Your task to perform on an android device: turn notification dots off Image 0: 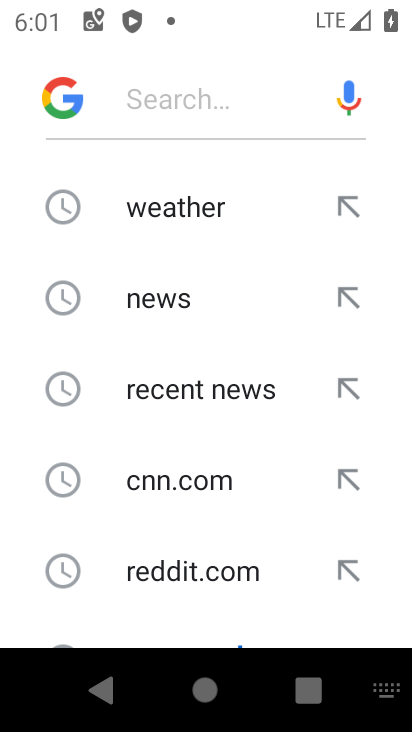
Step 0: press home button
Your task to perform on an android device: turn notification dots off Image 1: 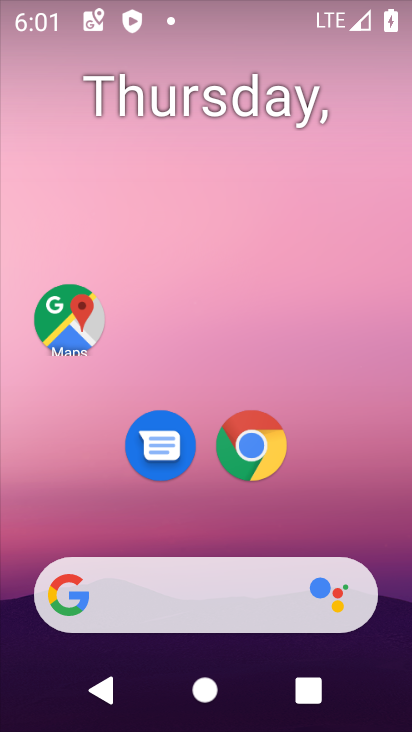
Step 1: drag from (295, 501) to (336, 87)
Your task to perform on an android device: turn notification dots off Image 2: 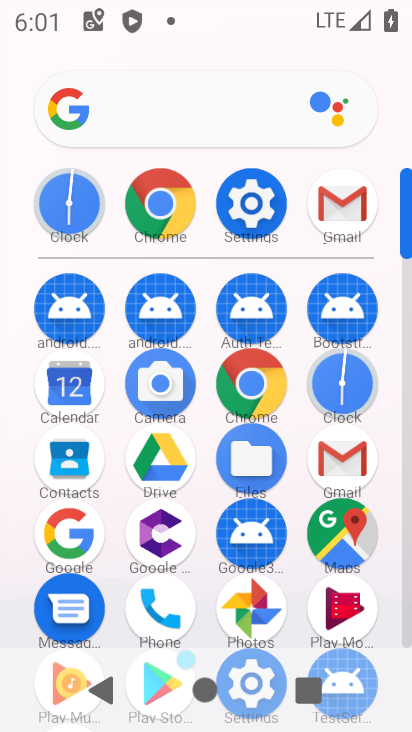
Step 2: click (235, 194)
Your task to perform on an android device: turn notification dots off Image 3: 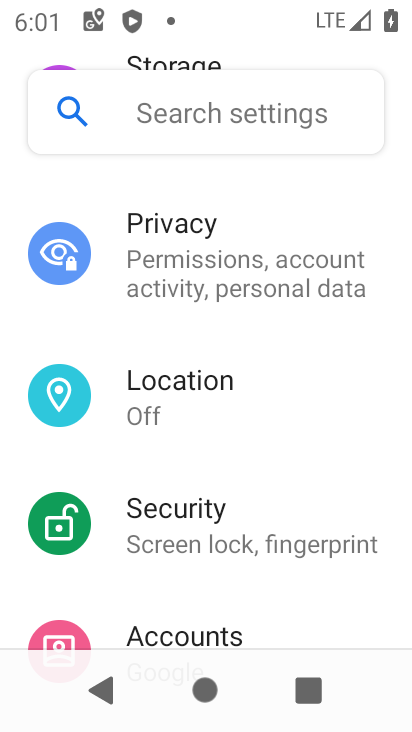
Step 3: drag from (284, 219) to (269, 578)
Your task to perform on an android device: turn notification dots off Image 4: 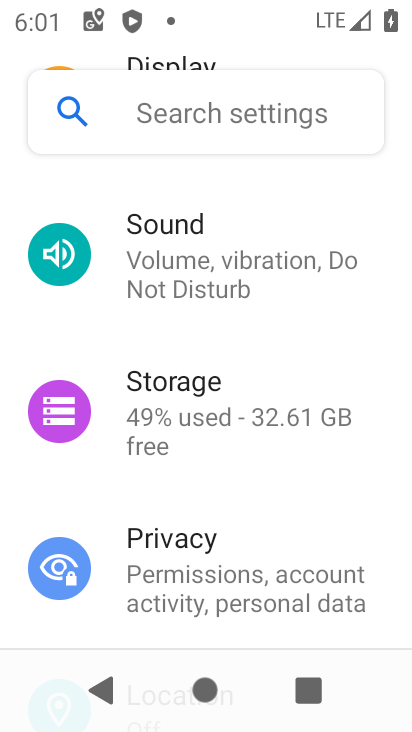
Step 4: drag from (297, 216) to (291, 519)
Your task to perform on an android device: turn notification dots off Image 5: 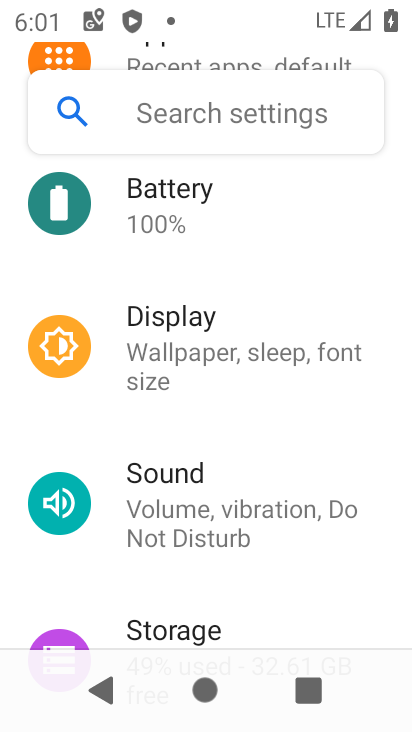
Step 5: drag from (292, 267) to (259, 585)
Your task to perform on an android device: turn notification dots off Image 6: 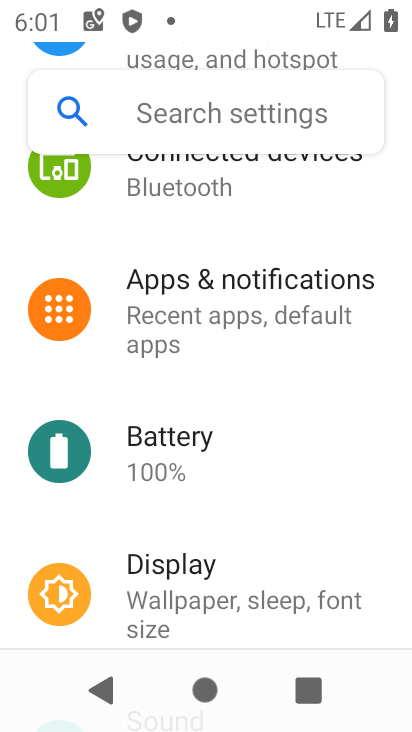
Step 6: click (275, 307)
Your task to perform on an android device: turn notification dots off Image 7: 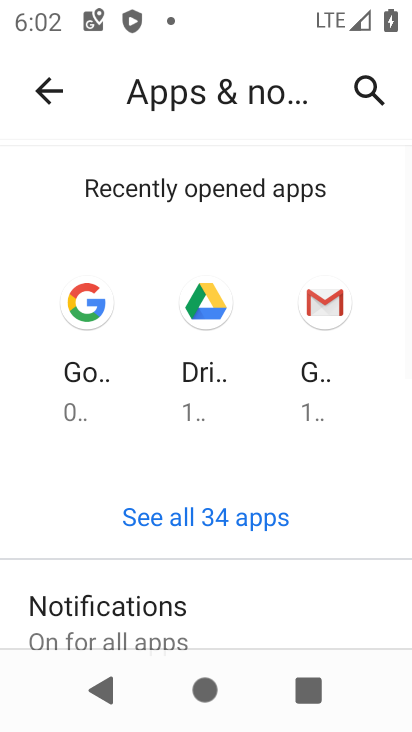
Step 7: click (115, 615)
Your task to perform on an android device: turn notification dots off Image 8: 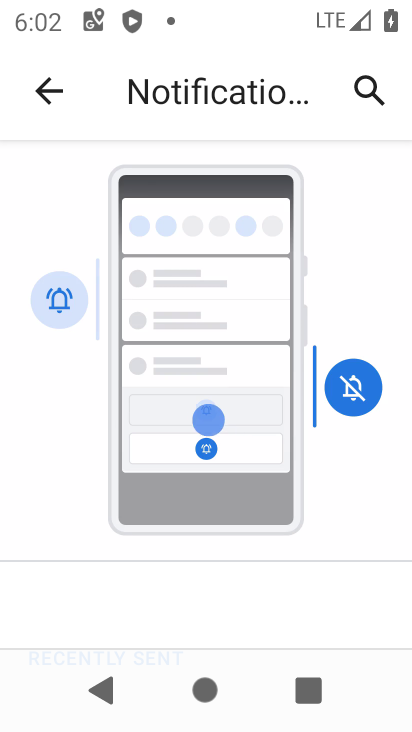
Step 8: drag from (339, 574) to (349, 235)
Your task to perform on an android device: turn notification dots off Image 9: 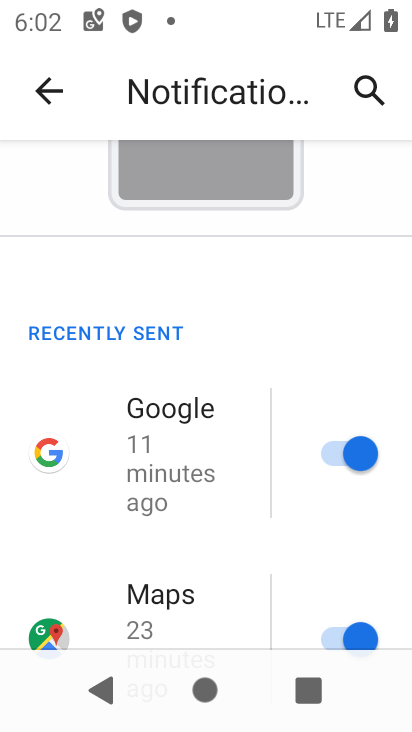
Step 9: drag from (280, 537) to (313, 240)
Your task to perform on an android device: turn notification dots off Image 10: 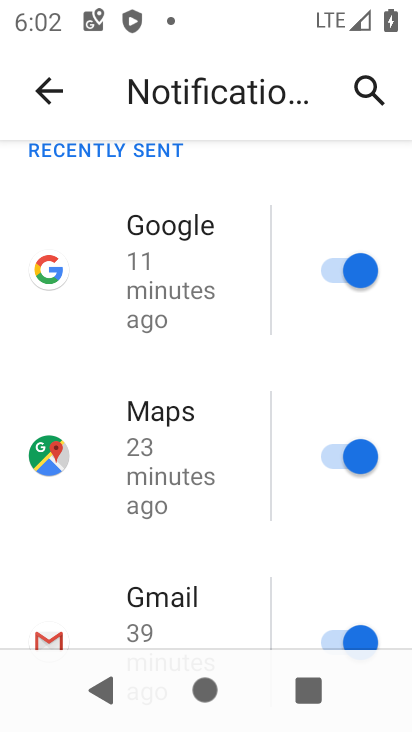
Step 10: drag from (271, 589) to (295, 265)
Your task to perform on an android device: turn notification dots off Image 11: 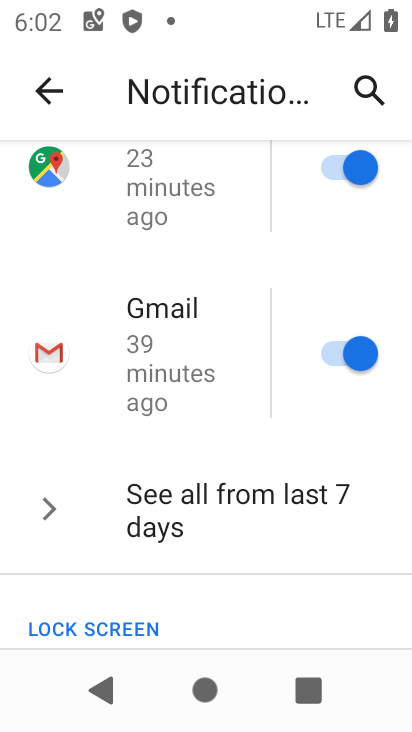
Step 11: drag from (274, 614) to (283, 275)
Your task to perform on an android device: turn notification dots off Image 12: 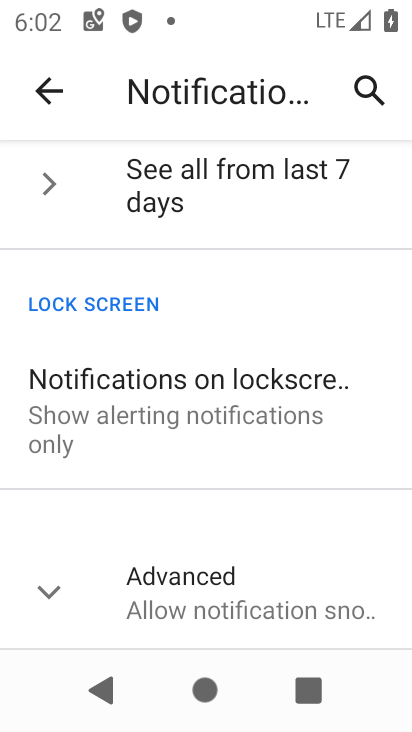
Step 12: click (221, 588)
Your task to perform on an android device: turn notification dots off Image 13: 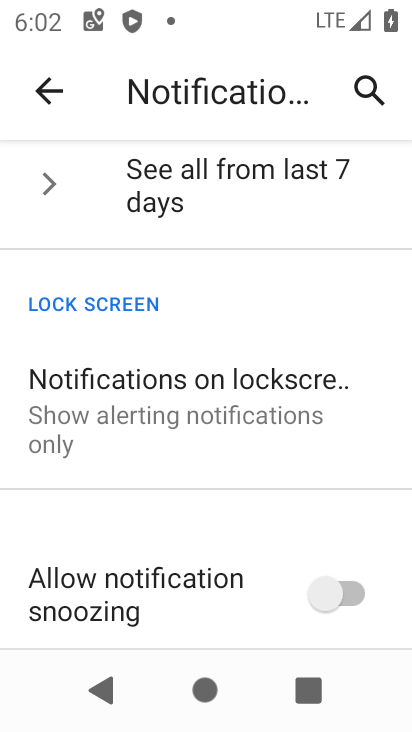
Step 13: drag from (262, 615) to (276, 286)
Your task to perform on an android device: turn notification dots off Image 14: 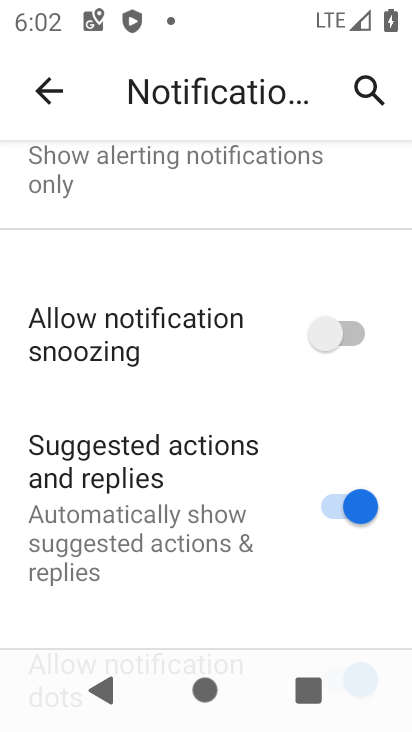
Step 14: drag from (250, 579) to (264, 286)
Your task to perform on an android device: turn notification dots off Image 15: 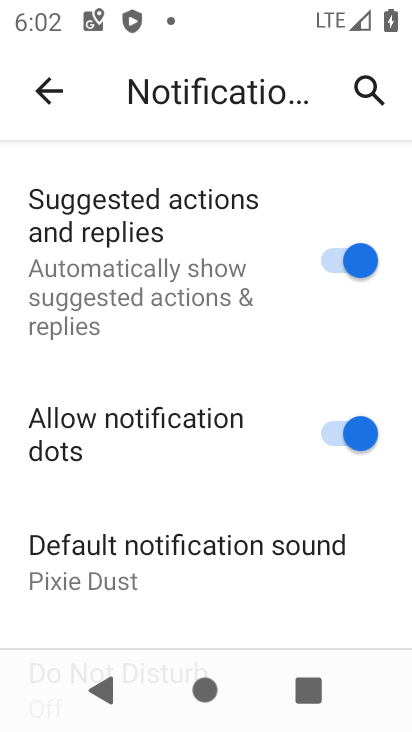
Step 15: drag from (246, 570) to (252, 280)
Your task to perform on an android device: turn notification dots off Image 16: 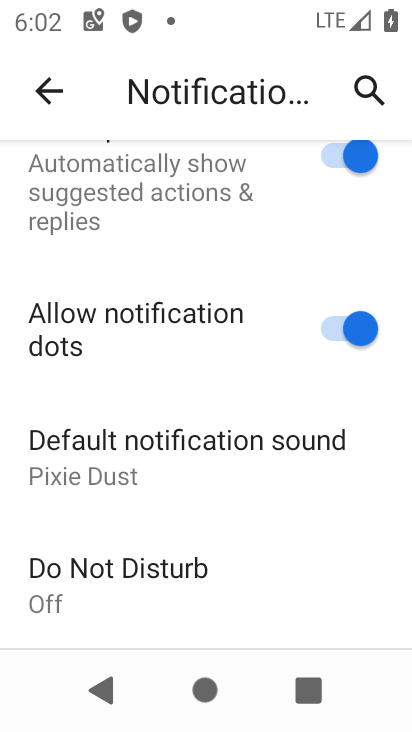
Step 16: drag from (258, 573) to (272, 289)
Your task to perform on an android device: turn notification dots off Image 17: 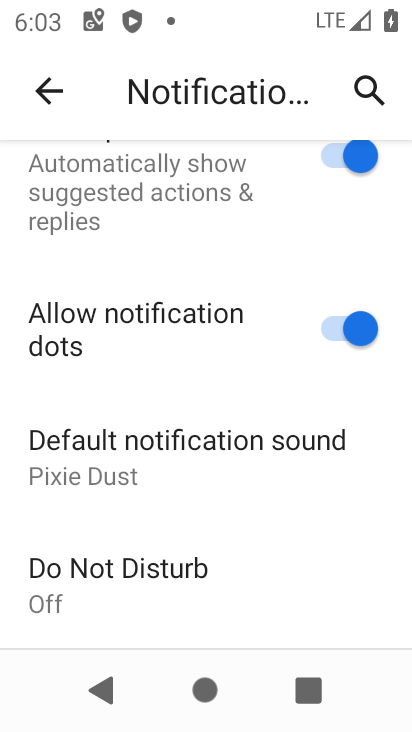
Step 17: click (345, 326)
Your task to perform on an android device: turn notification dots off Image 18: 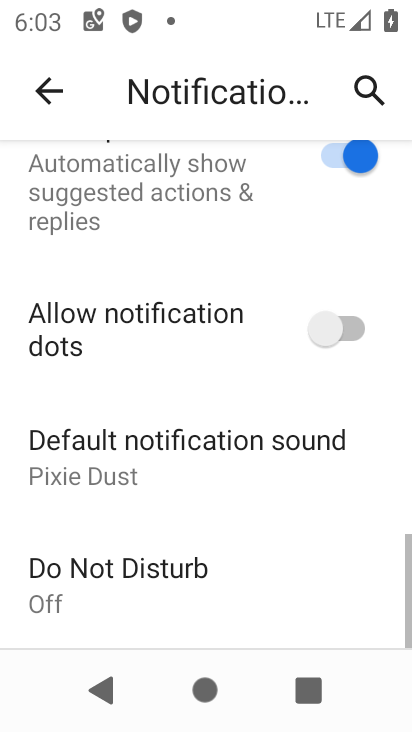
Step 18: task complete